Your task to perform on an android device: What's on my calendar tomorrow? Image 0: 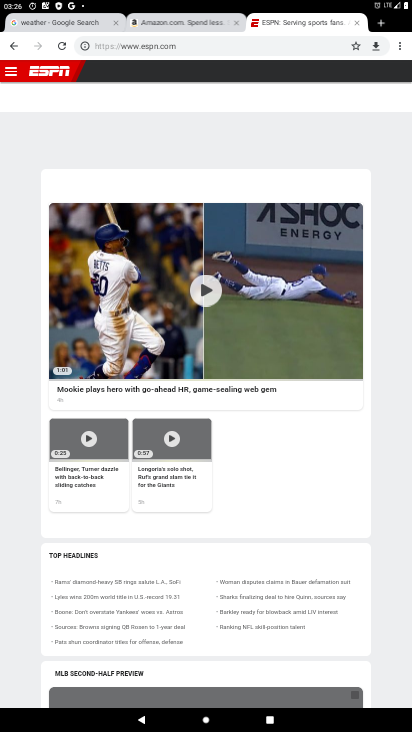
Step 0: press home button
Your task to perform on an android device: What's on my calendar tomorrow? Image 1: 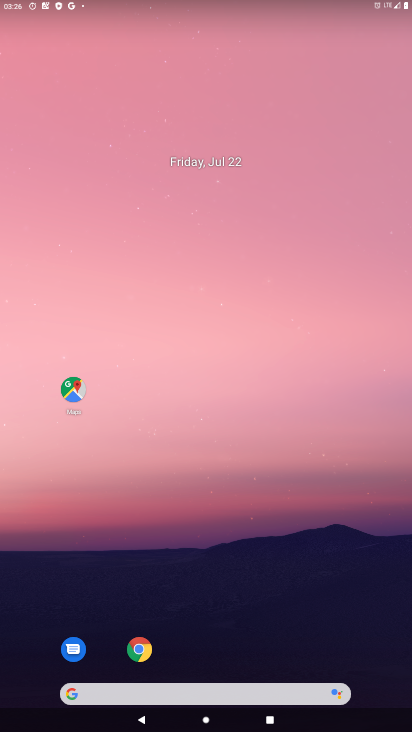
Step 1: drag from (308, 300) to (313, 140)
Your task to perform on an android device: What's on my calendar tomorrow? Image 2: 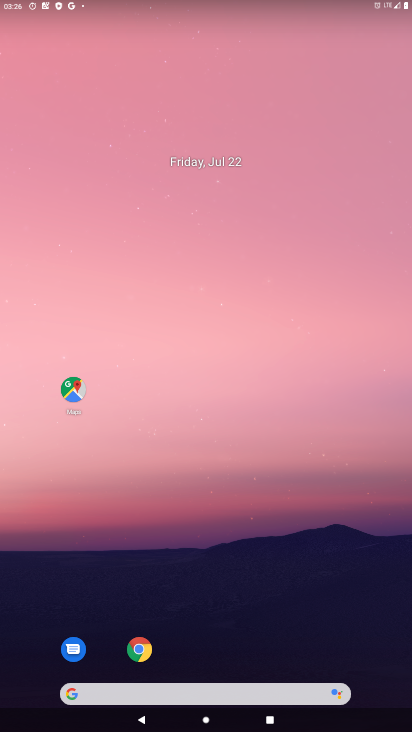
Step 2: drag from (360, 607) to (328, 51)
Your task to perform on an android device: What's on my calendar tomorrow? Image 3: 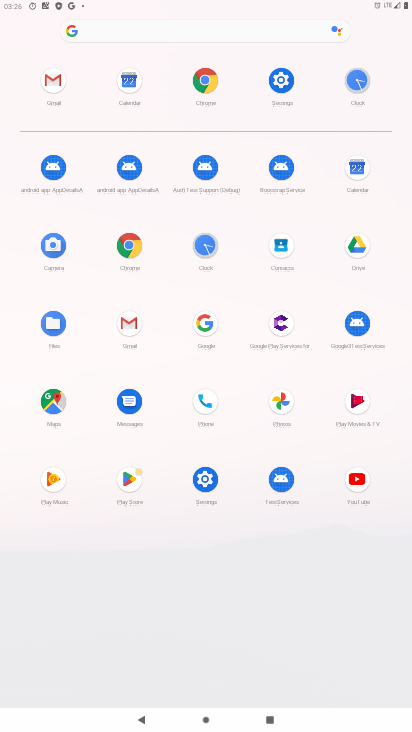
Step 3: click (364, 169)
Your task to perform on an android device: What's on my calendar tomorrow? Image 4: 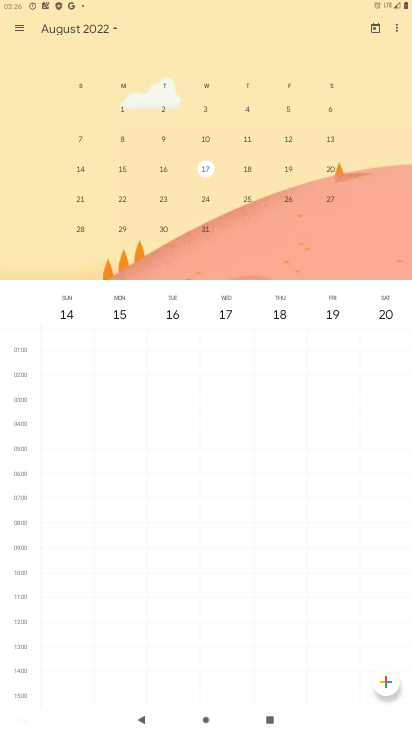
Step 4: click (101, 24)
Your task to perform on an android device: What's on my calendar tomorrow? Image 5: 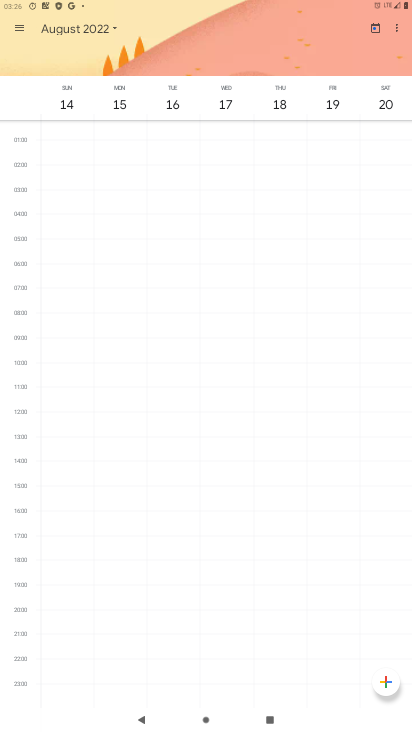
Step 5: click (71, 36)
Your task to perform on an android device: What's on my calendar tomorrow? Image 6: 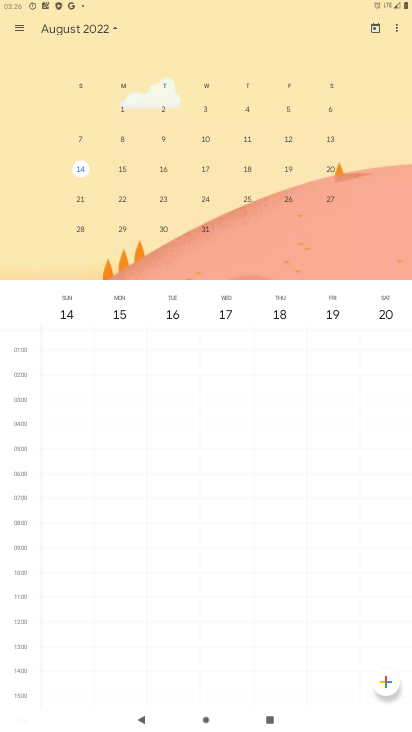
Step 6: drag from (81, 158) to (348, 129)
Your task to perform on an android device: What's on my calendar tomorrow? Image 7: 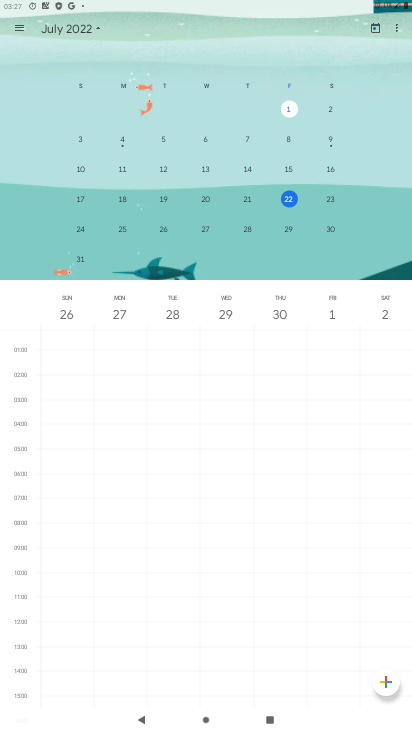
Step 7: click (330, 203)
Your task to perform on an android device: What's on my calendar tomorrow? Image 8: 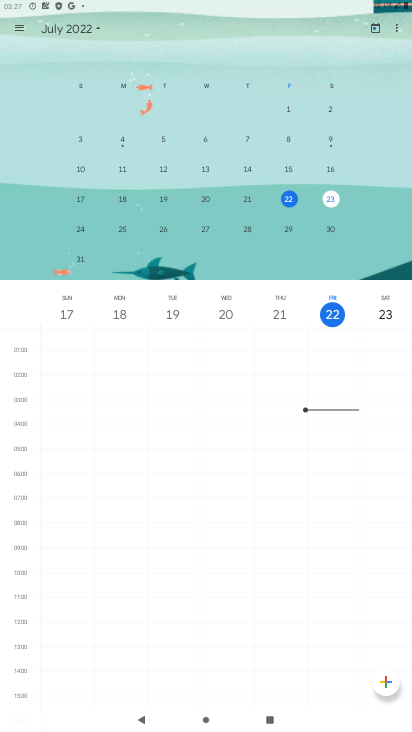
Step 8: task complete